Your task to perform on an android device: Go to display settings Image 0: 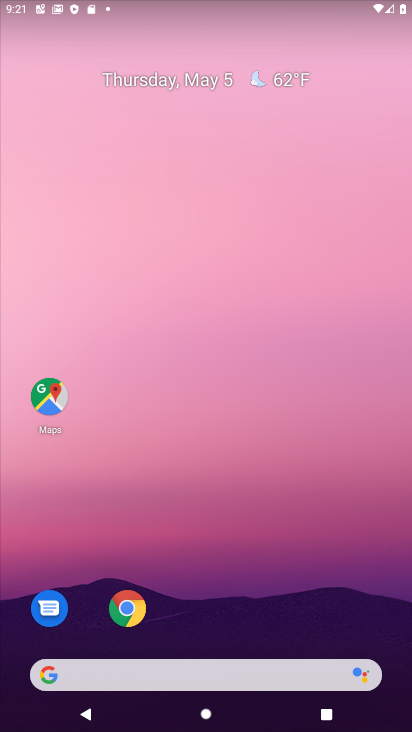
Step 0: drag from (293, 547) to (257, 25)
Your task to perform on an android device: Go to display settings Image 1: 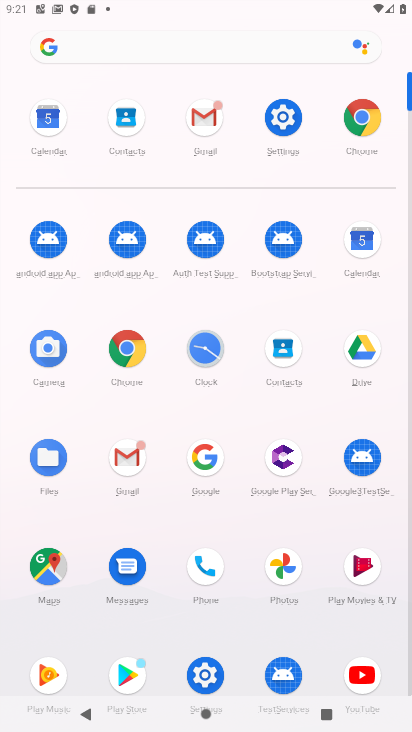
Step 1: drag from (12, 586) to (0, 246)
Your task to perform on an android device: Go to display settings Image 2: 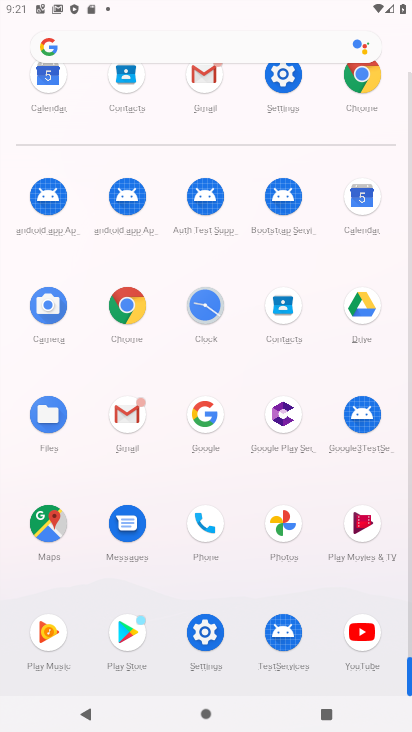
Step 2: click (205, 630)
Your task to perform on an android device: Go to display settings Image 3: 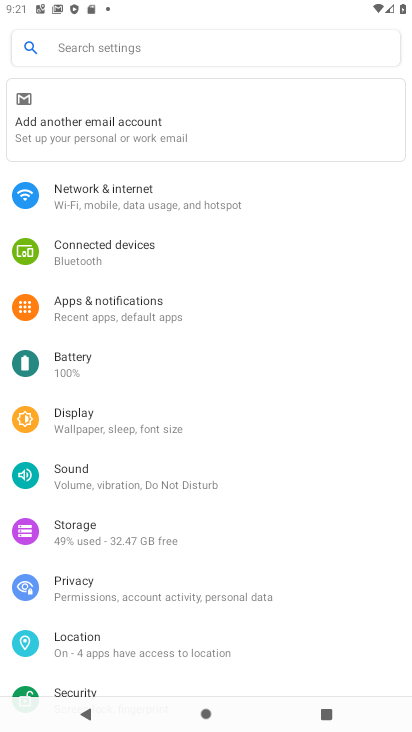
Step 3: click (100, 410)
Your task to perform on an android device: Go to display settings Image 4: 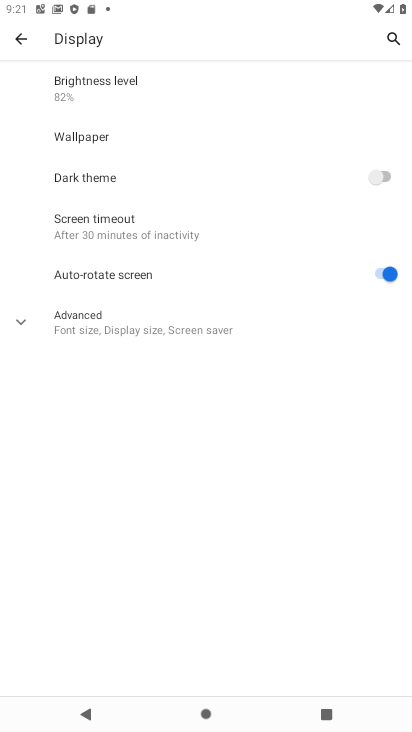
Step 4: click (28, 319)
Your task to perform on an android device: Go to display settings Image 5: 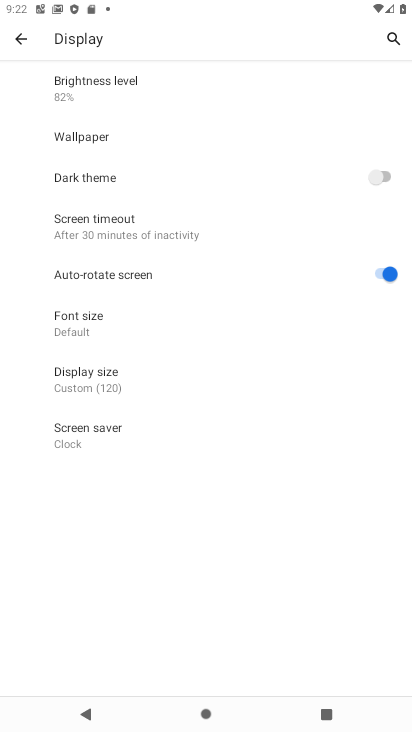
Step 5: task complete